Your task to perform on an android device: turn off data saver in the chrome app Image 0: 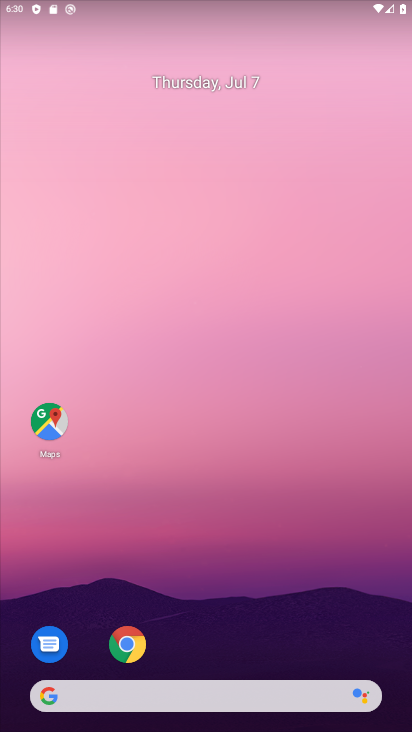
Step 0: drag from (220, 612) to (206, 182)
Your task to perform on an android device: turn off data saver in the chrome app Image 1: 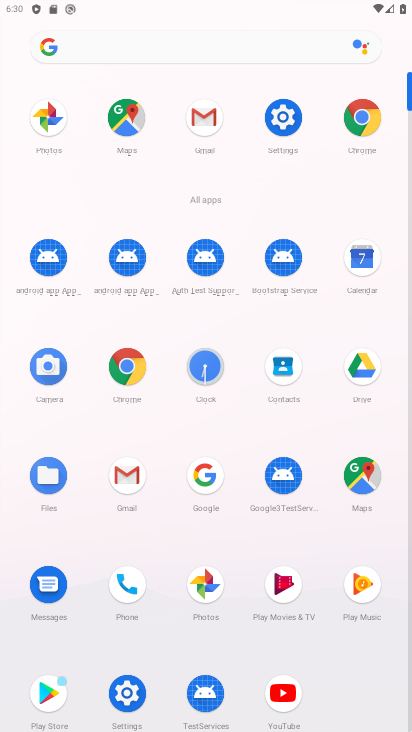
Step 1: click (346, 151)
Your task to perform on an android device: turn off data saver in the chrome app Image 2: 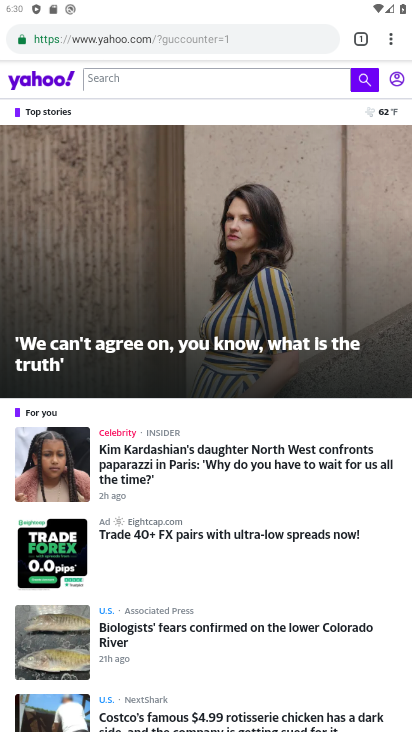
Step 2: click (387, 34)
Your task to perform on an android device: turn off data saver in the chrome app Image 3: 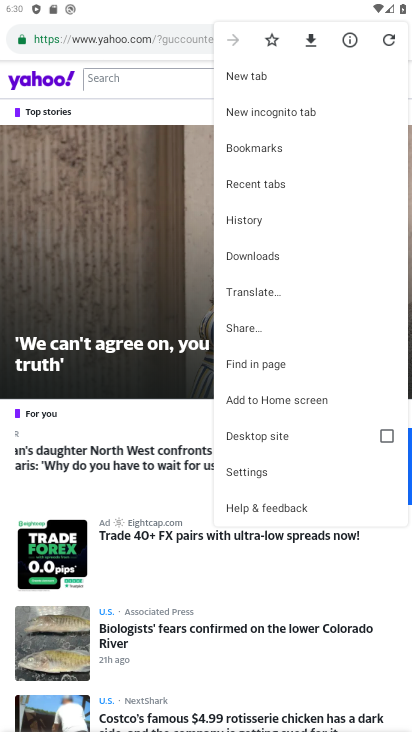
Step 3: click (246, 480)
Your task to perform on an android device: turn off data saver in the chrome app Image 4: 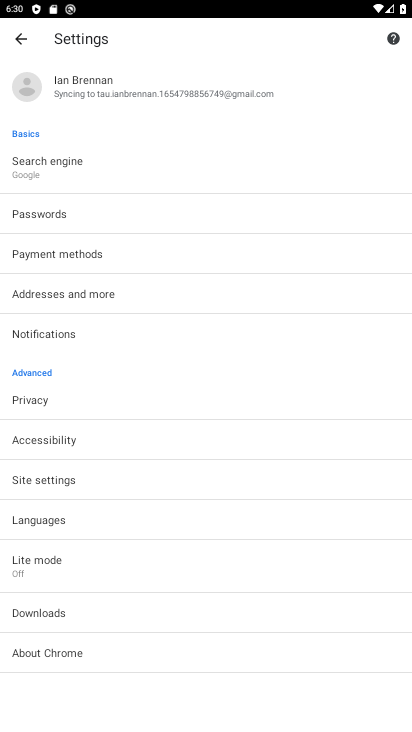
Step 4: click (54, 563)
Your task to perform on an android device: turn off data saver in the chrome app Image 5: 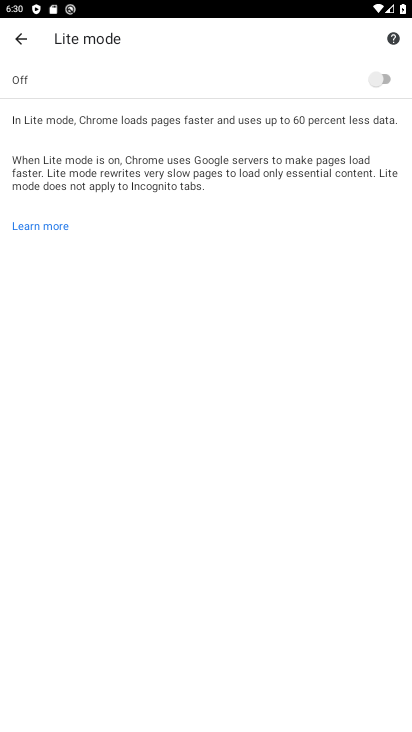
Step 5: task complete